Your task to perform on an android device: check android version Image 0: 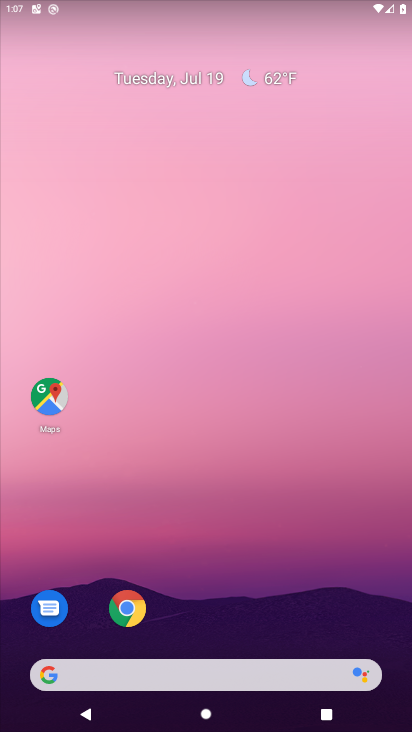
Step 0: drag from (212, 627) to (258, 267)
Your task to perform on an android device: check android version Image 1: 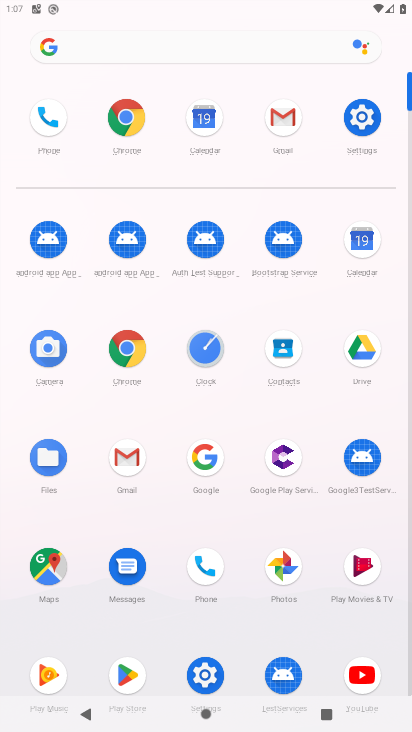
Step 1: click (362, 101)
Your task to perform on an android device: check android version Image 2: 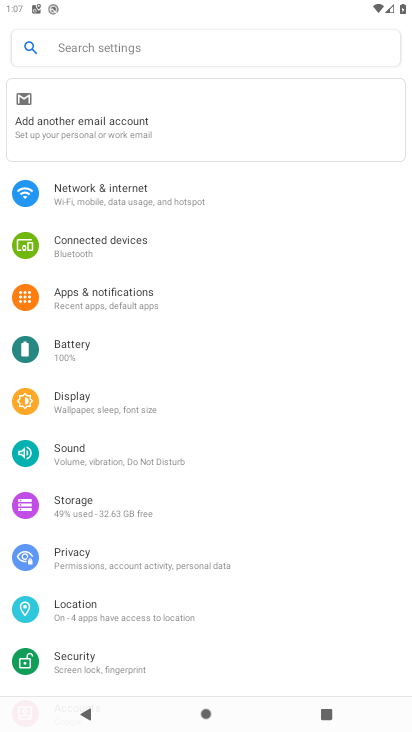
Step 2: drag from (198, 649) to (254, 156)
Your task to perform on an android device: check android version Image 3: 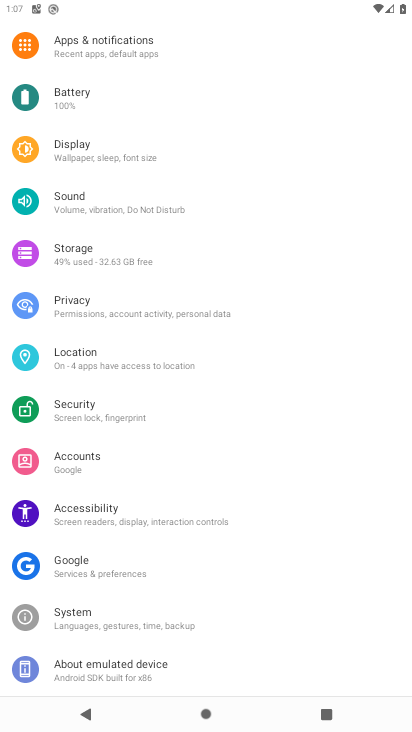
Step 3: click (176, 671)
Your task to perform on an android device: check android version Image 4: 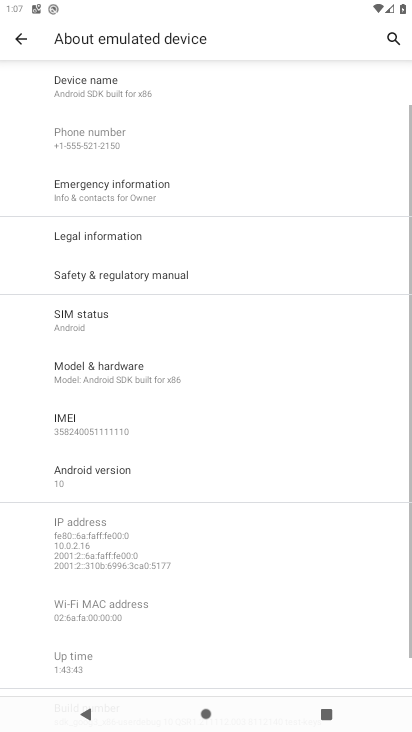
Step 4: click (100, 480)
Your task to perform on an android device: check android version Image 5: 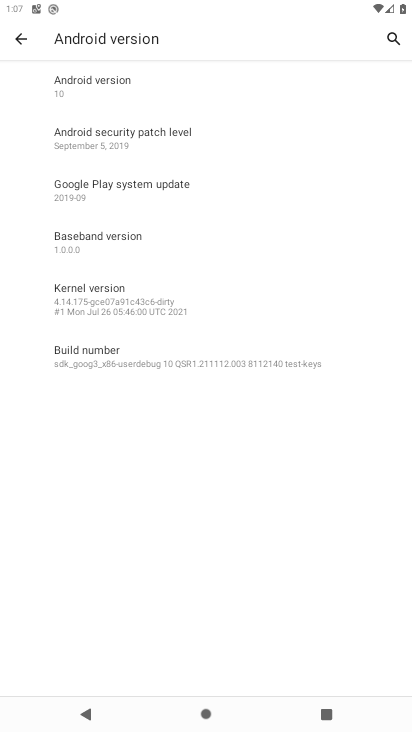
Step 5: task complete